Your task to perform on an android device: Open internet settings Image 0: 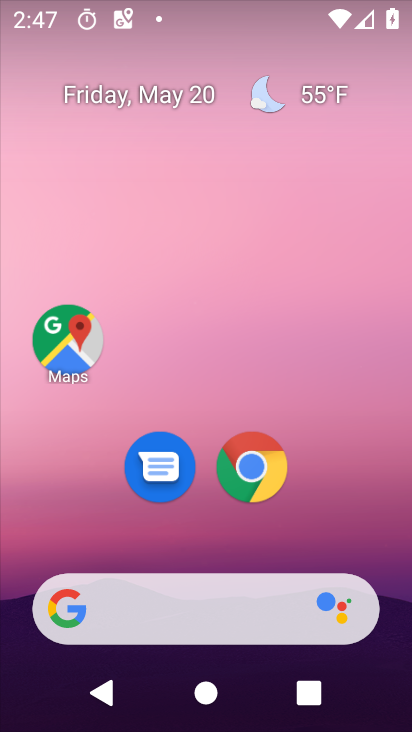
Step 0: drag from (229, 533) to (210, 27)
Your task to perform on an android device: Open internet settings Image 1: 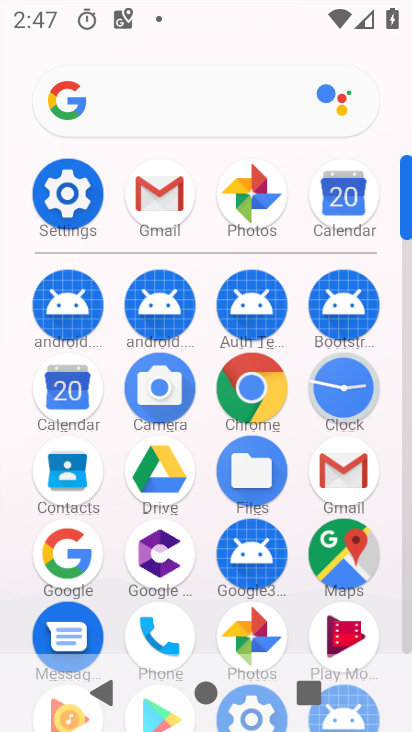
Step 1: click (66, 189)
Your task to perform on an android device: Open internet settings Image 2: 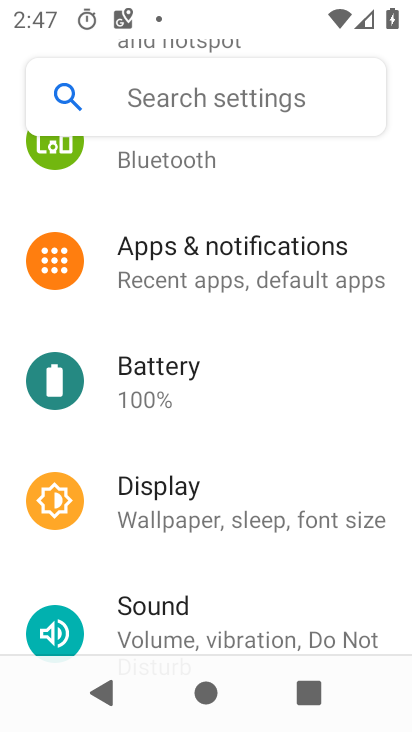
Step 2: drag from (180, 272) to (211, 632)
Your task to perform on an android device: Open internet settings Image 3: 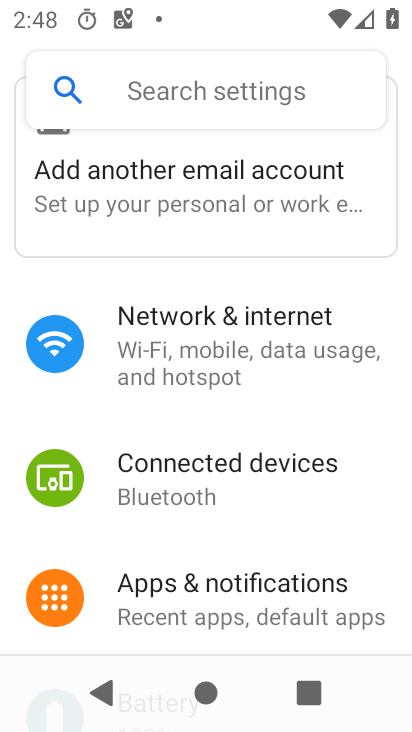
Step 3: click (158, 381)
Your task to perform on an android device: Open internet settings Image 4: 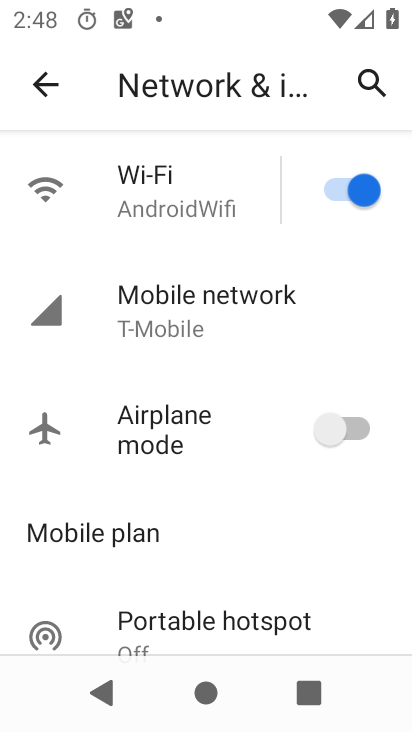
Step 4: click (138, 329)
Your task to perform on an android device: Open internet settings Image 5: 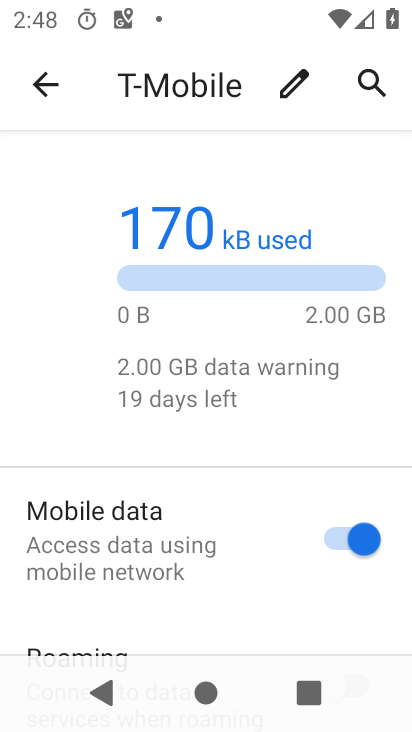
Step 5: task complete